Your task to perform on an android device: check data usage Image 0: 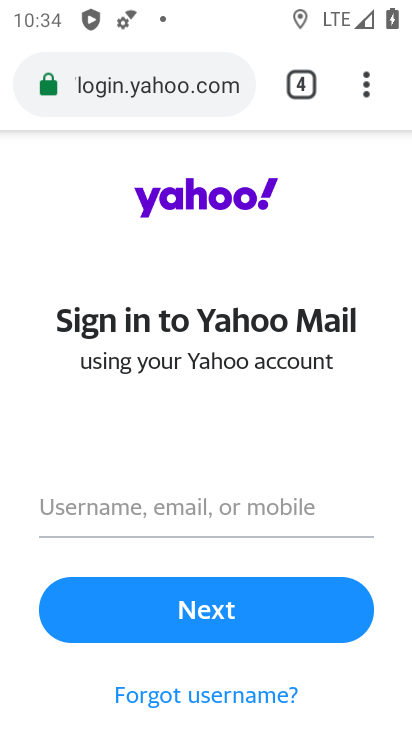
Step 0: press home button
Your task to perform on an android device: check data usage Image 1: 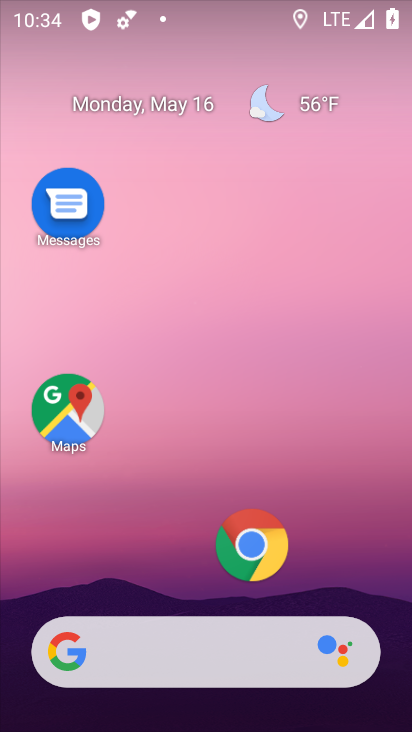
Step 1: drag from (224, 593) to (247, 8)
Your task to perform on an android device: check data usage Image 2: 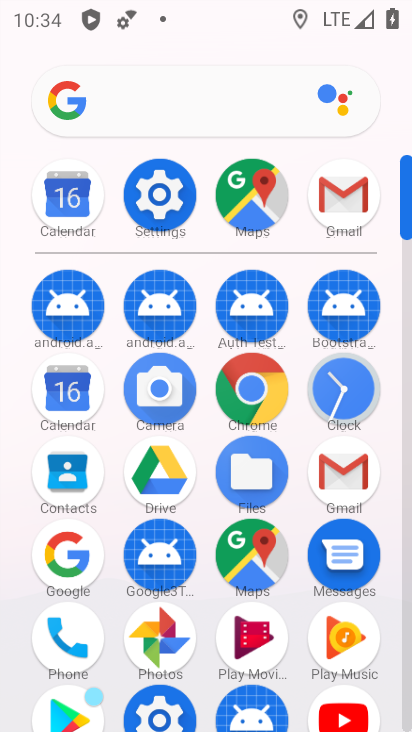
Step 2: click (150, 223)
Your task to perform on an android device: check data usage Image 3: 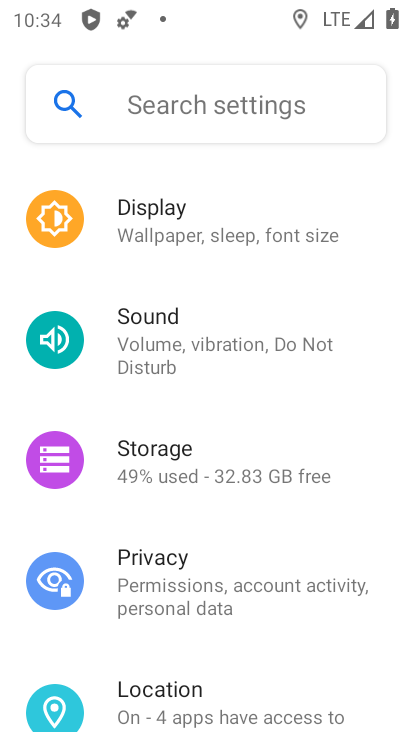
Step 3: drag from (131, 229) to (199, 597)
Your task to perform on an android device: check data usage Image 4: 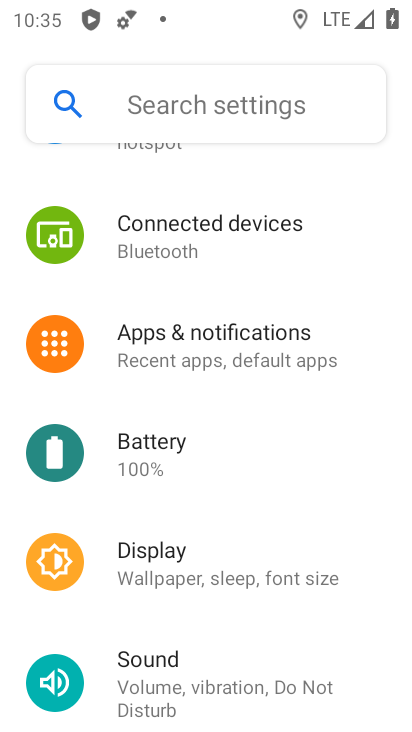
Step 4: drag from (242, 270) to (308, 608)
Your task to perform on an android device: check data usage Image 5: 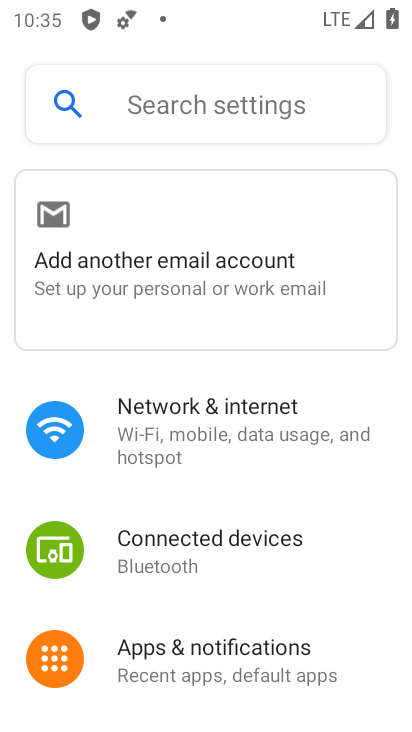
Step 5: click (232, 424)
Your task to perform on an android device: check data usage Image 6: 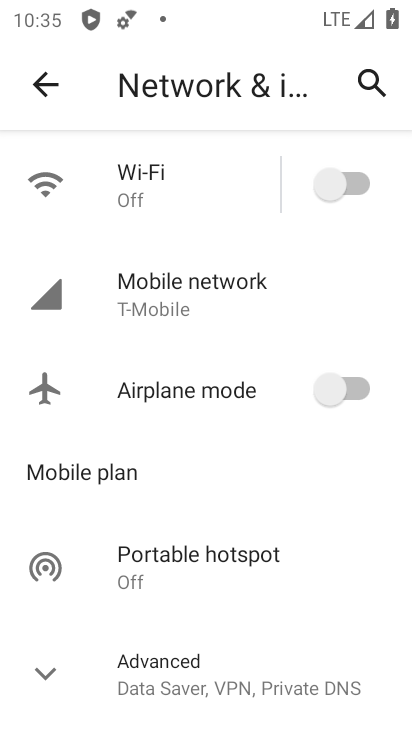
Step 6: click (217, 301)
Your task to perform on an android device: check data usage Image 7: 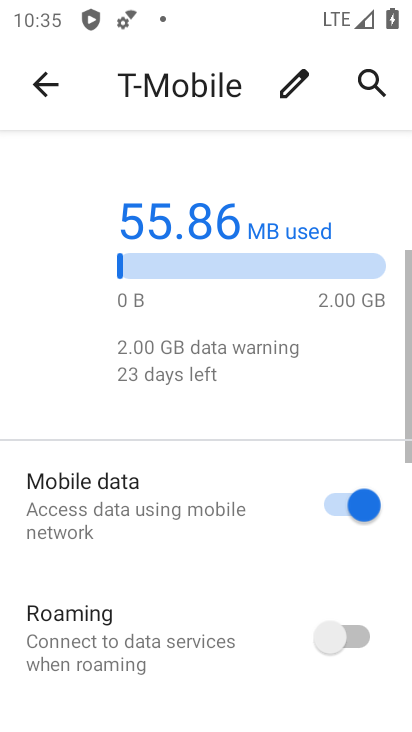
Step 7: task complete